Your task to perform on an android device: install app "Nova Launcher" Image 0: 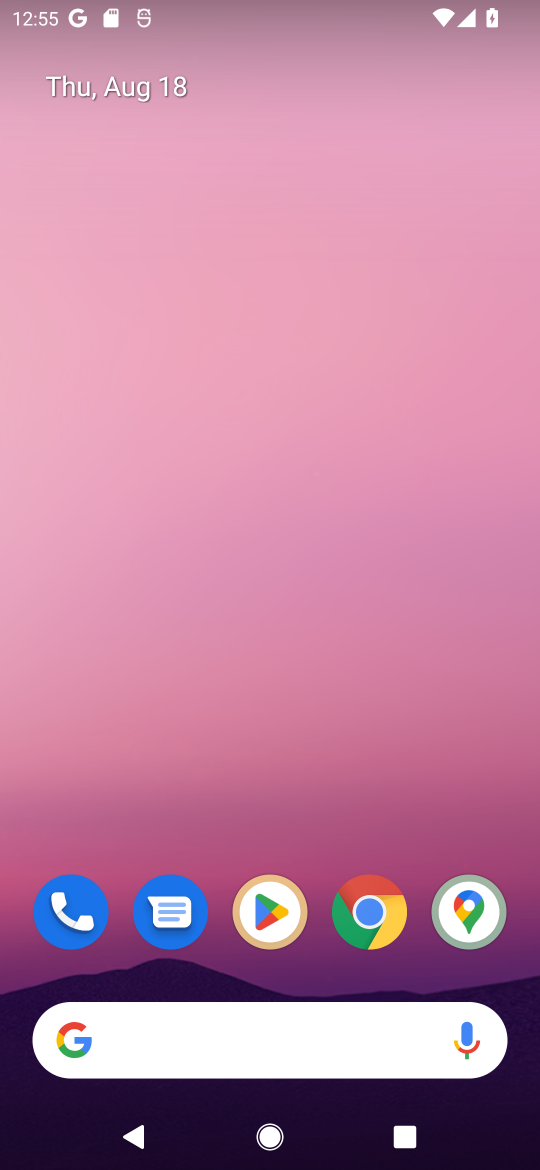
Step 0: click (284, 906)
Your task to perform on an android device: install app "Nova Launcher" Image 1: 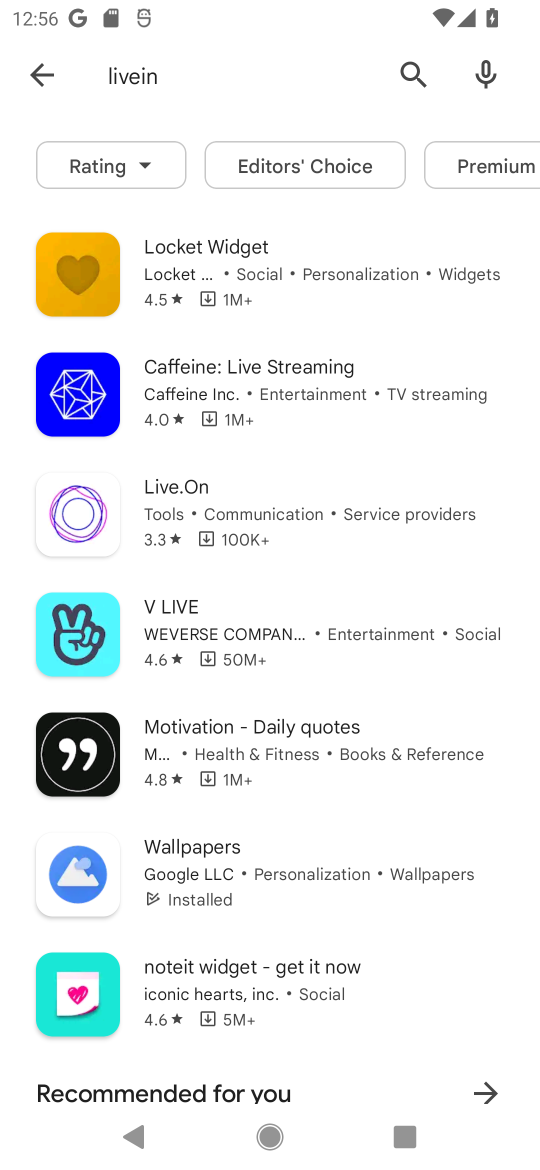
Step 1: click (410, 72)
Your task to perform on an android device: install app "Nova Launcher" Image 2: 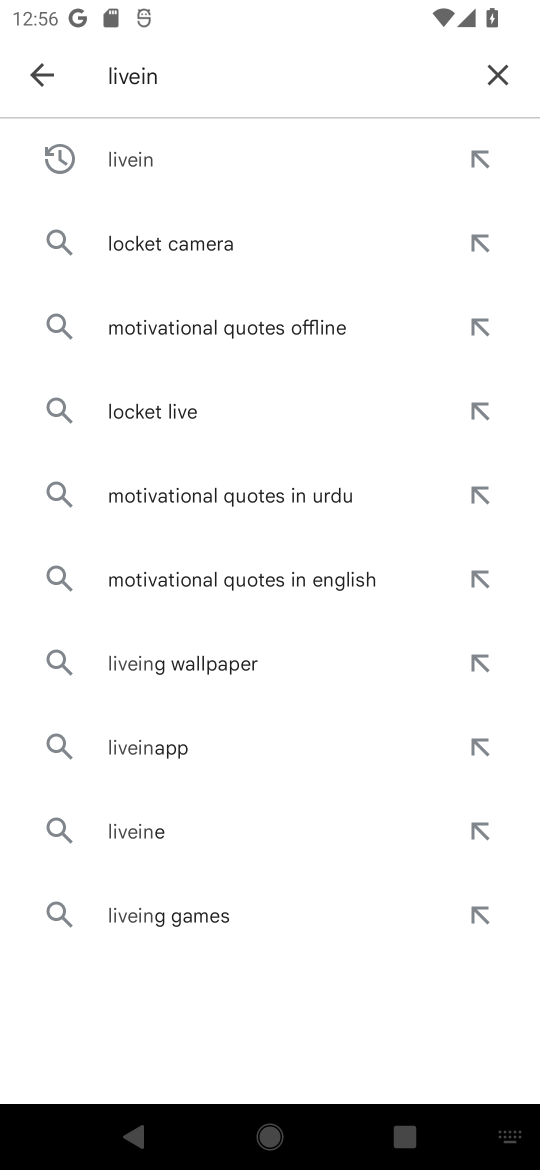
Step 2: click (505, 72)
Your task to perform on an android device: install app "Nova Launcher" Image 3: 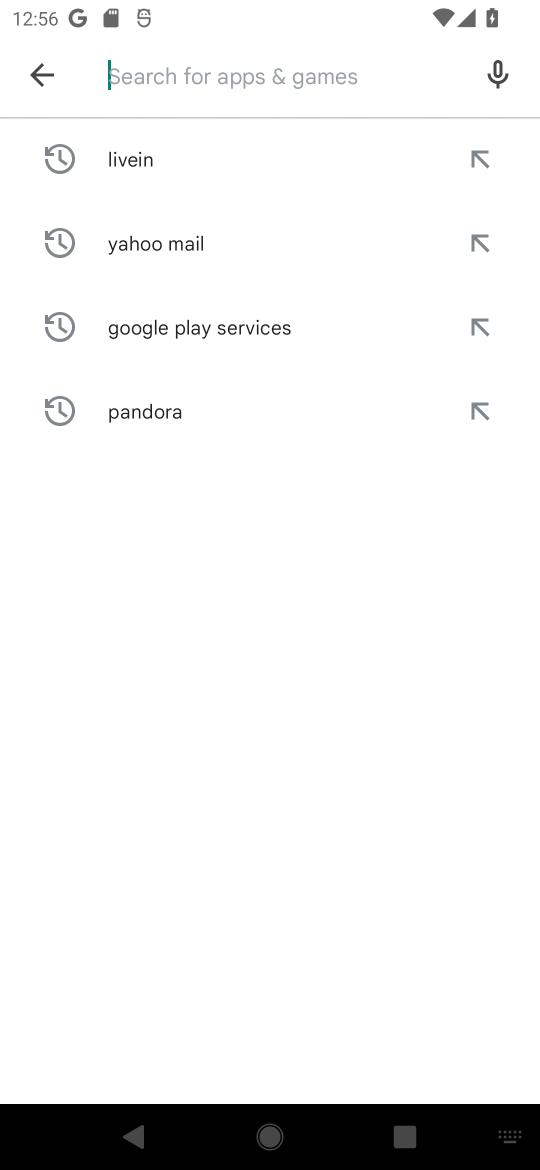
Step 3: click (262, 67)
Your task to perform on an android device: install app "Nova Launcher" Image 4: 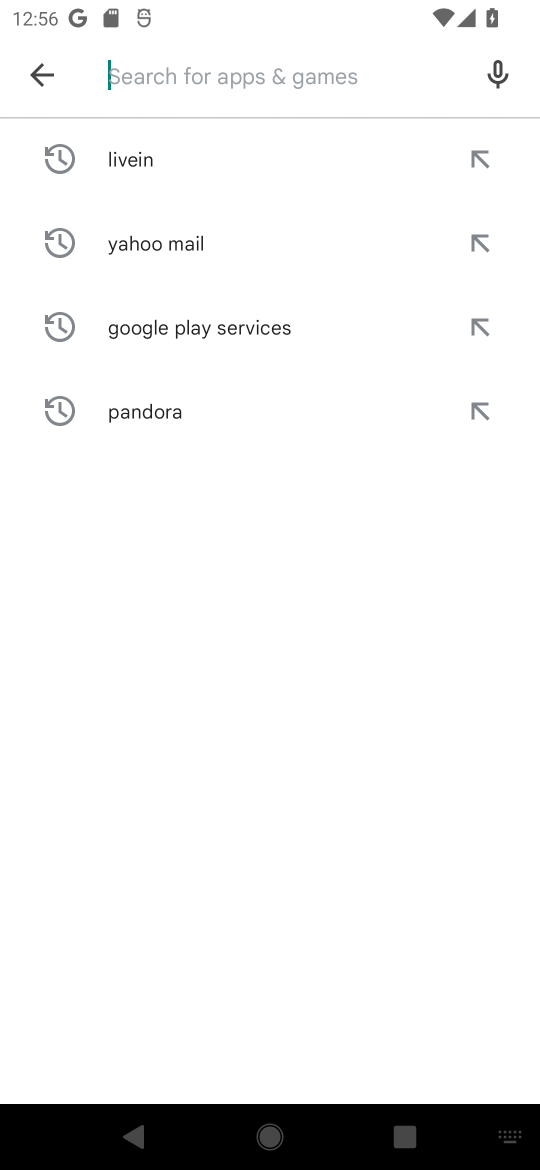
Step 4: type "Nova Launcher"
Your task to perform on an android device: install app "Nova Launcher" Image 5: 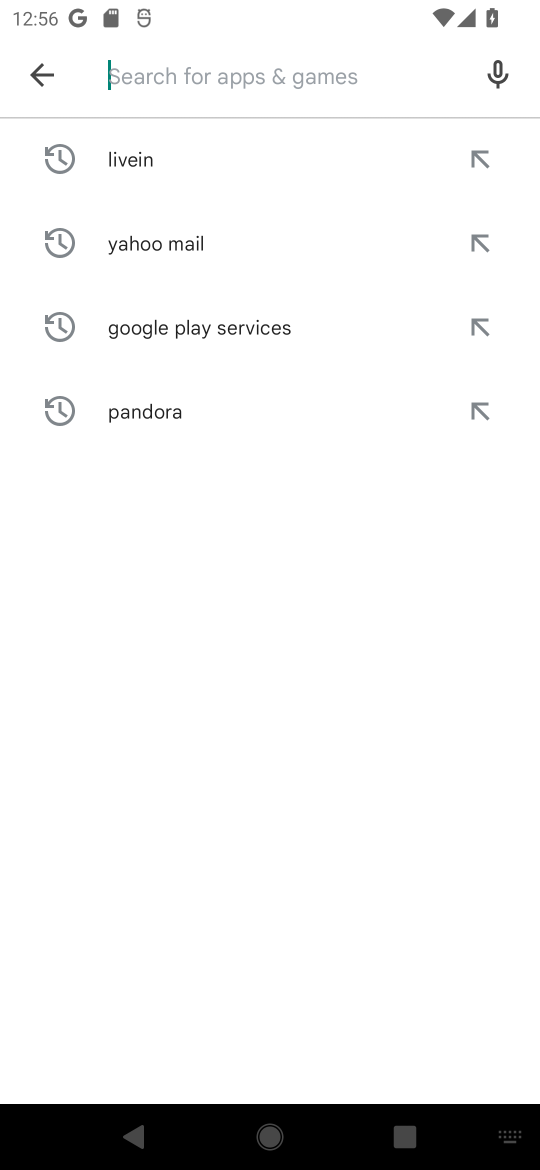
Step 5: click (249, 677)
Your task to perform on an android device: install app "Nova Launcher" Image 6: 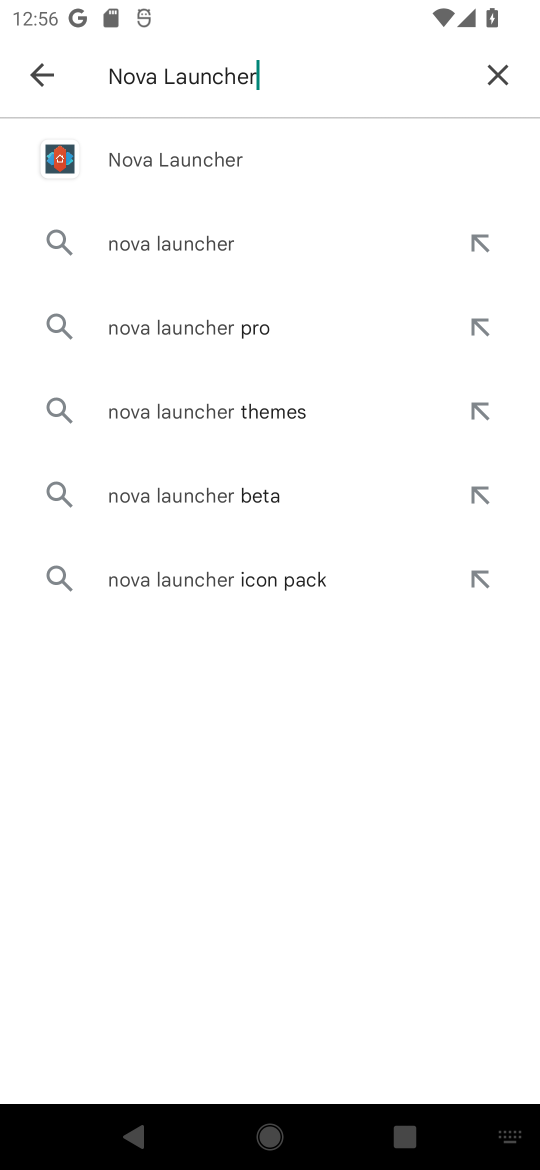
Step 6: click (229, 155)
Your task to perform on an android device: install app "Nova Launcher" Image 7: 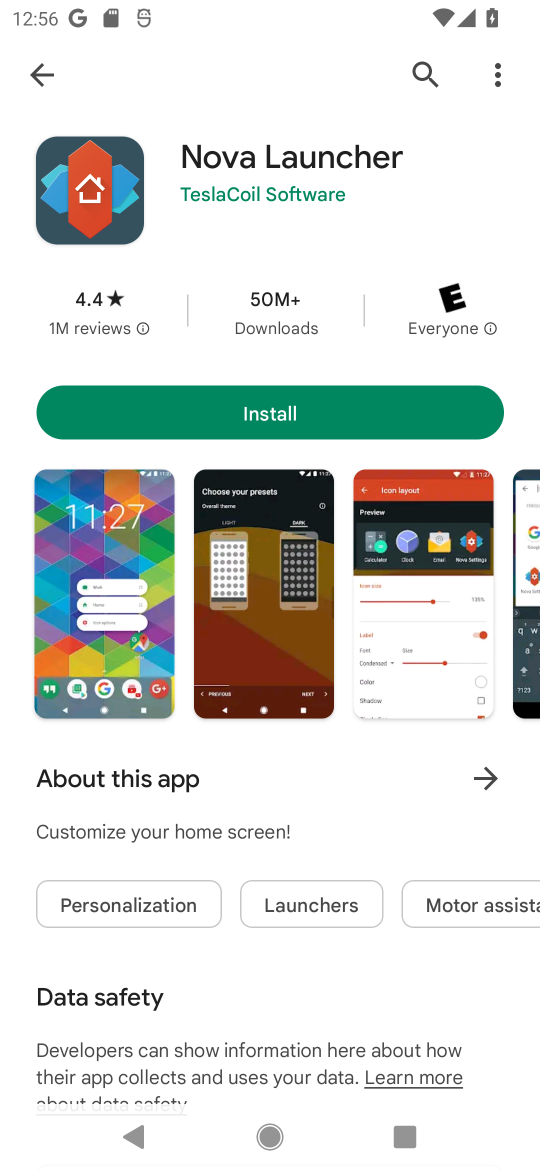
Step 7: click (300, 413)
Your task to perform on an android device: install app "Nova Launcher" Image 8: 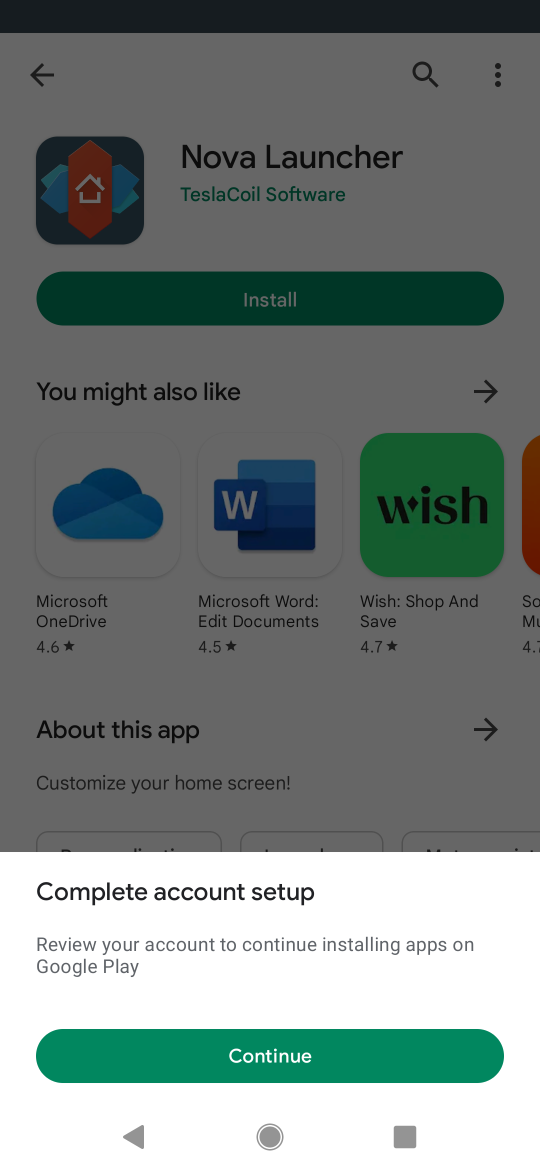
Step 8: click (298, 1065)
Your task to perform on an android device: install app "Nova Launcher" Image 9: 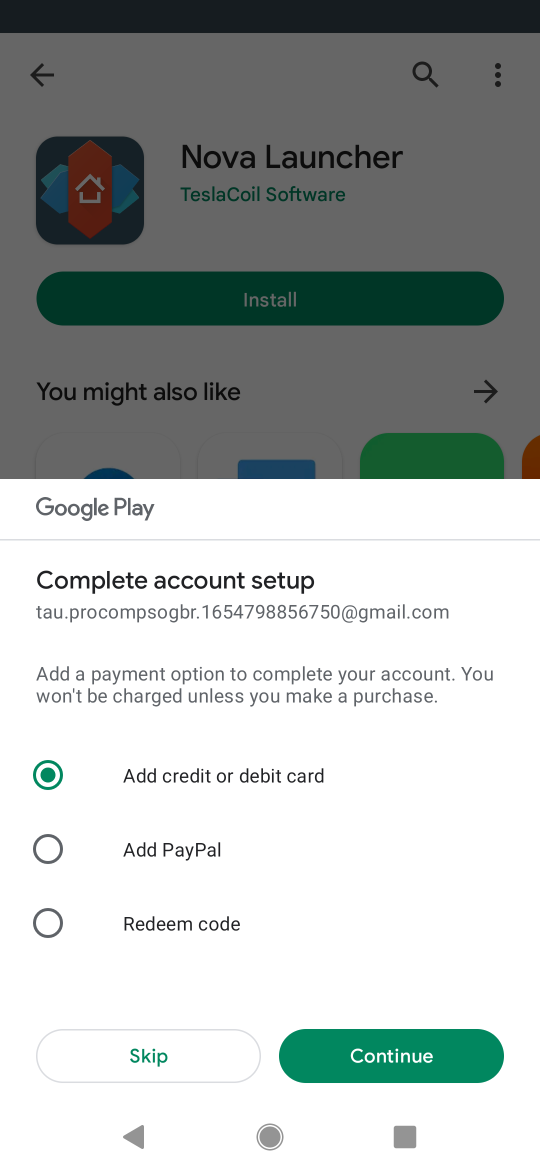
Step 9: click (144, 1068)
Your task to perform on an android device: install app "Nova Launcher" Image 10: 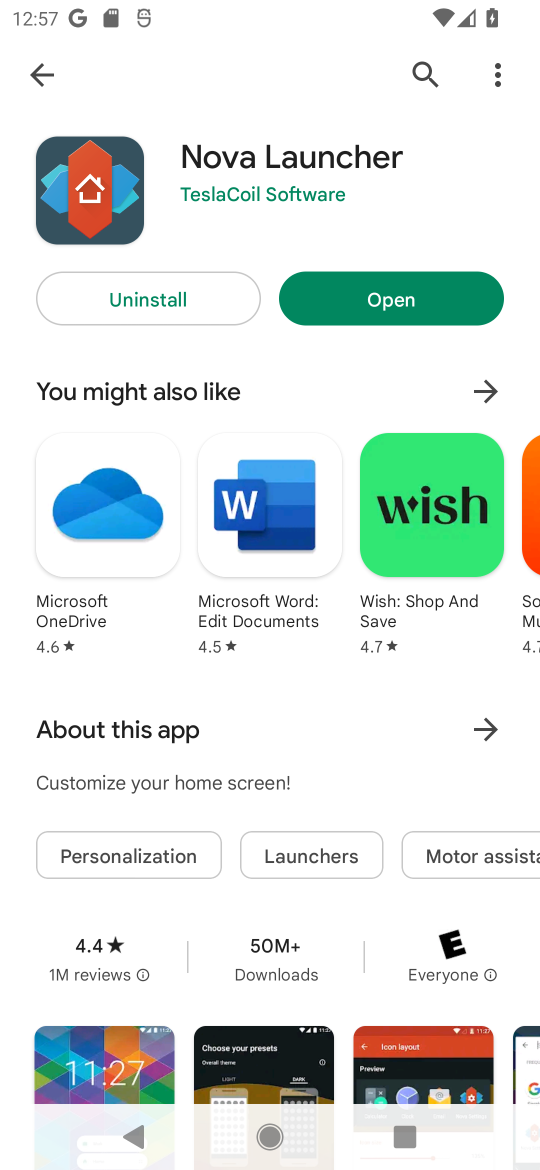
Step 10: task complete